Your task to perform on an android device: open sync settings in chrome Image 0: 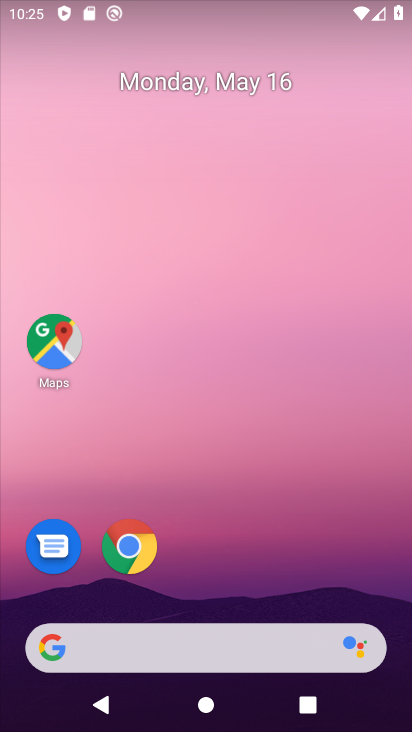
Step 0: click (131, 546)
Your task to perform on an android device: open sync settings in chrome Image 1: 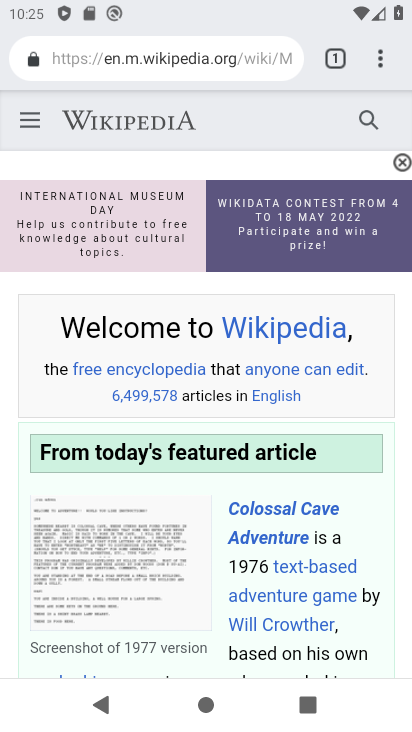
Step 1: drag from (388, 47) to (277, 580)
Your task to perform on an android device: open sync settings in chrome Image 2: 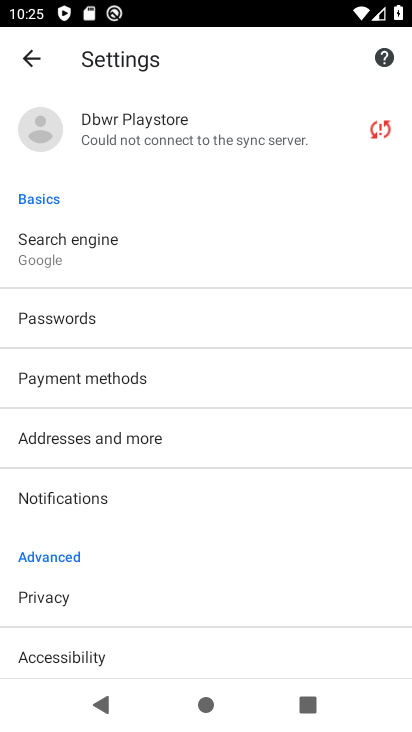
Step 2: click (218, 149)
Your task to perform on an android device: open sync settings in chrome Image 3: 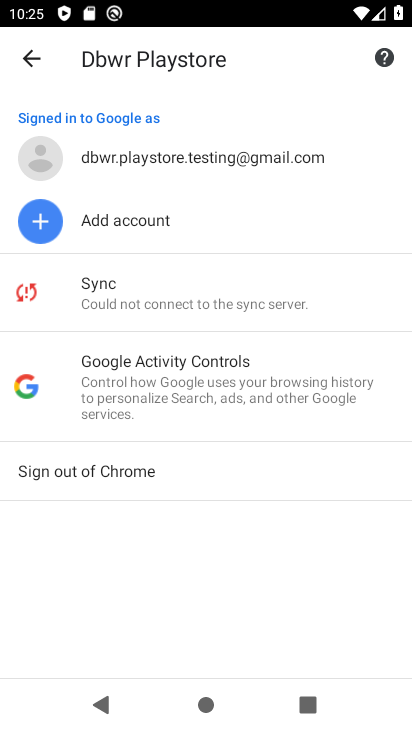
Step 3: click (214, 278)
Your task to perform on an android device: open sync settings in chrome Image 4: 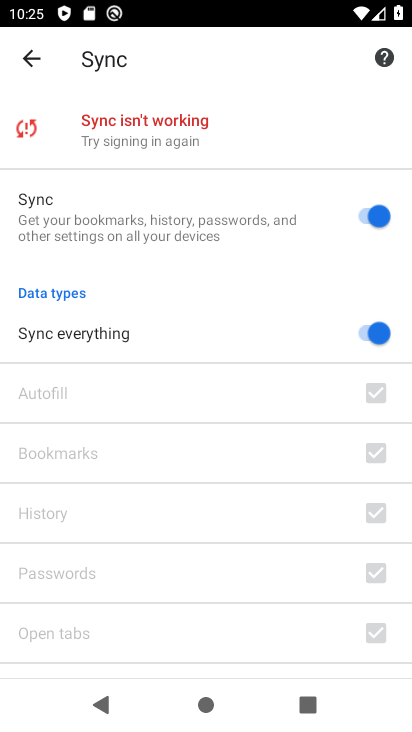
Step 4: task complete